Your task to perform on an android device: move a message to another label in the gmail app Image 0: 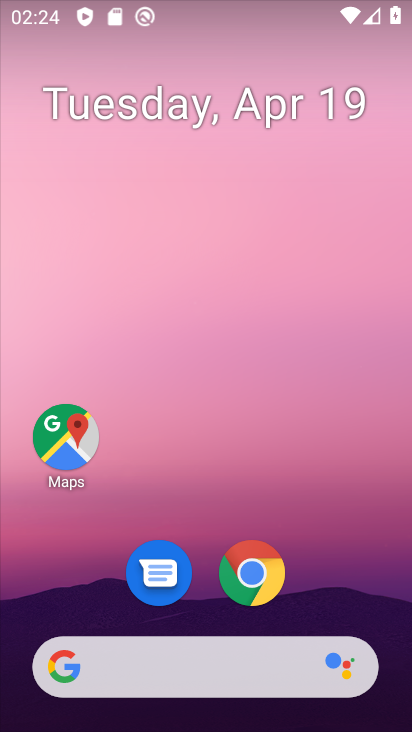
Step 0: drag from (354, 610) to (410, 688)
Your task to perform on an android device: move a message to another label in the gmail app Image 1: 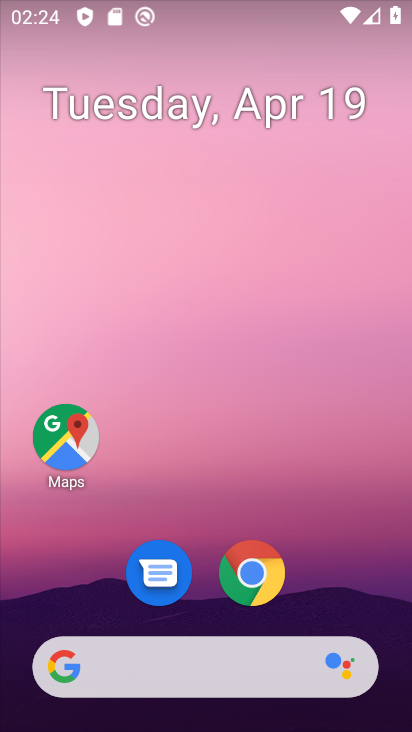
Step 1: drag from (360, 576) to (400, 543)
Your task to perform on an android device: move a message to another label in the gmail app Image 2: 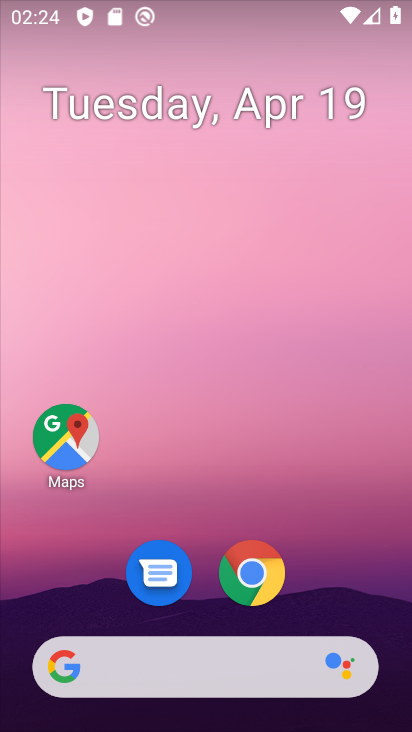
Step 2: drag from (344, 553) to (331, 39)
Your task to perform on an android device: move a message to another label in the gmail app Image 3: 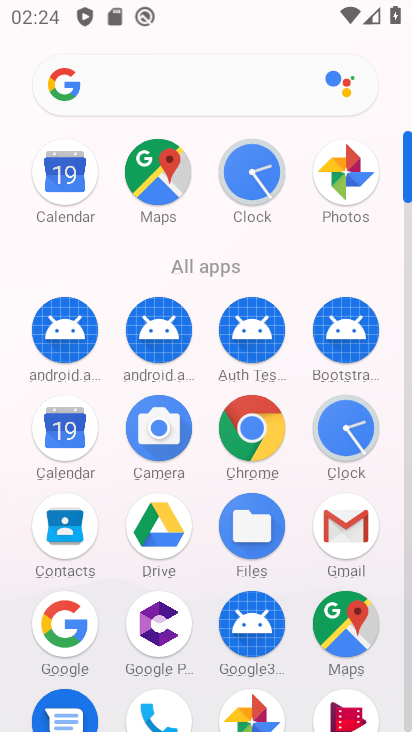
Step 3: click (334, 526)
Your task to perform on an android device: move a message to another label in the gmail app Image 4: 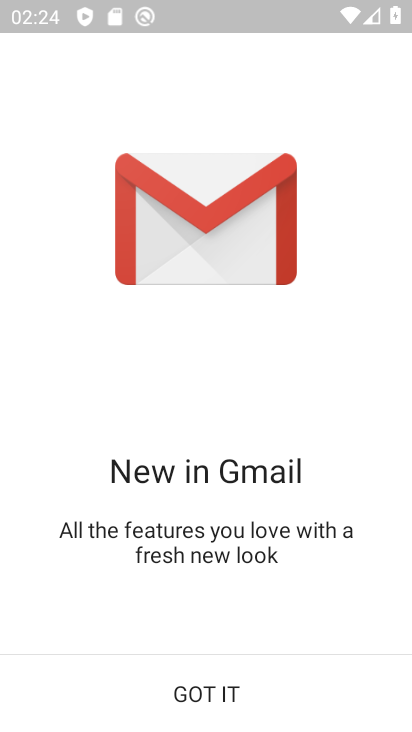
Step 4: click (218, 698)
Your task to perform on an android device: move a message to another label in the gmail app Image 5: 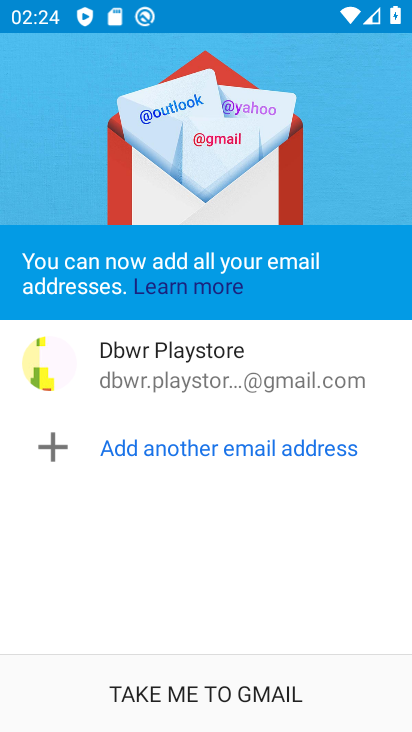
Step 5: click (184, 700)
Your task to perform on an android device: move a message to another label in the gmail app Image 6: 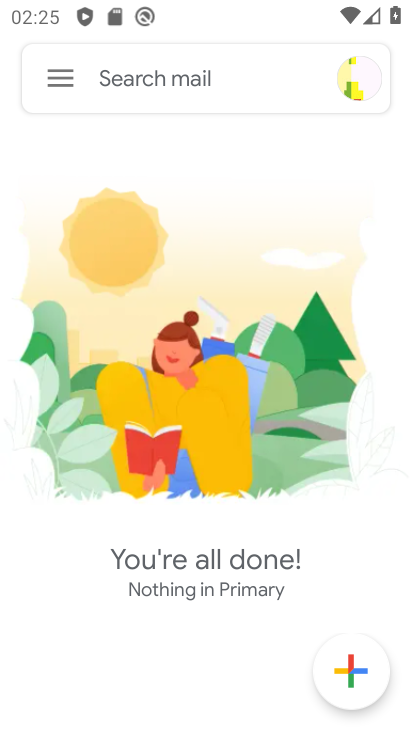
Step 6: click (53, 75)
Your task to perform on an android device: move a message to another label in the gmail app Image 7: 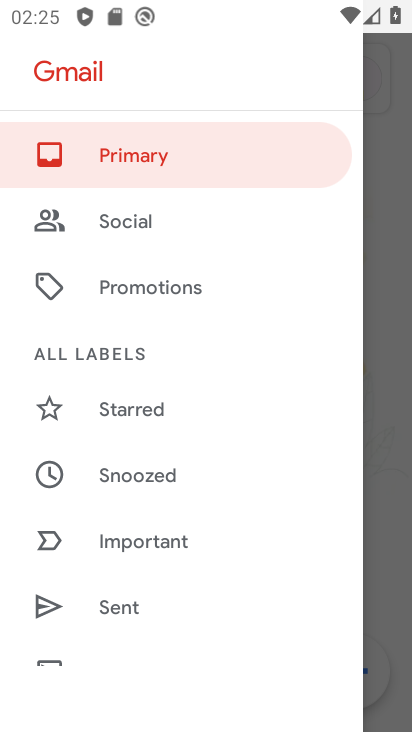
Step 7: drag from (190, 422) to (199, 185)
Your task to perform on an android device: move a message to another label in the gmail app Image 8: 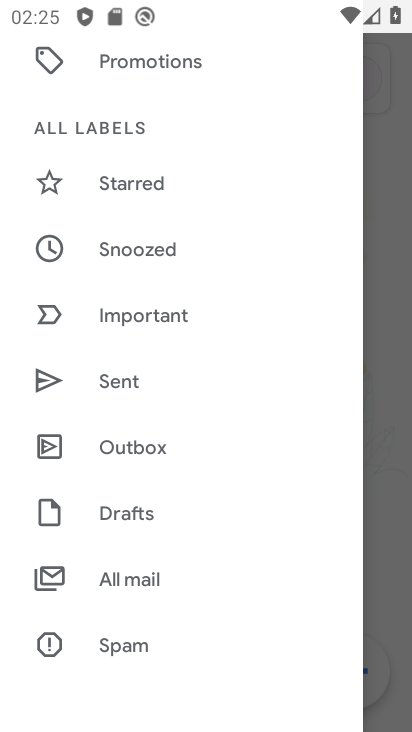
Step 8: click (150, 578)
Your task to perform on an android device: move a message to another label in the gmail app Image 9: 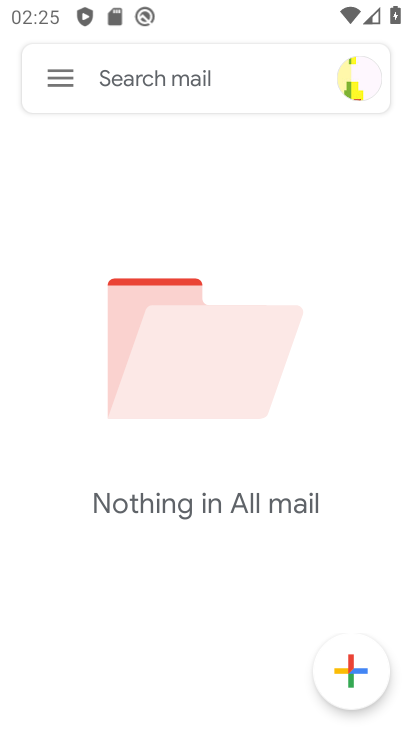
Step 9: task complete